Your task to perform on an android device: Open internet settings Image 0: 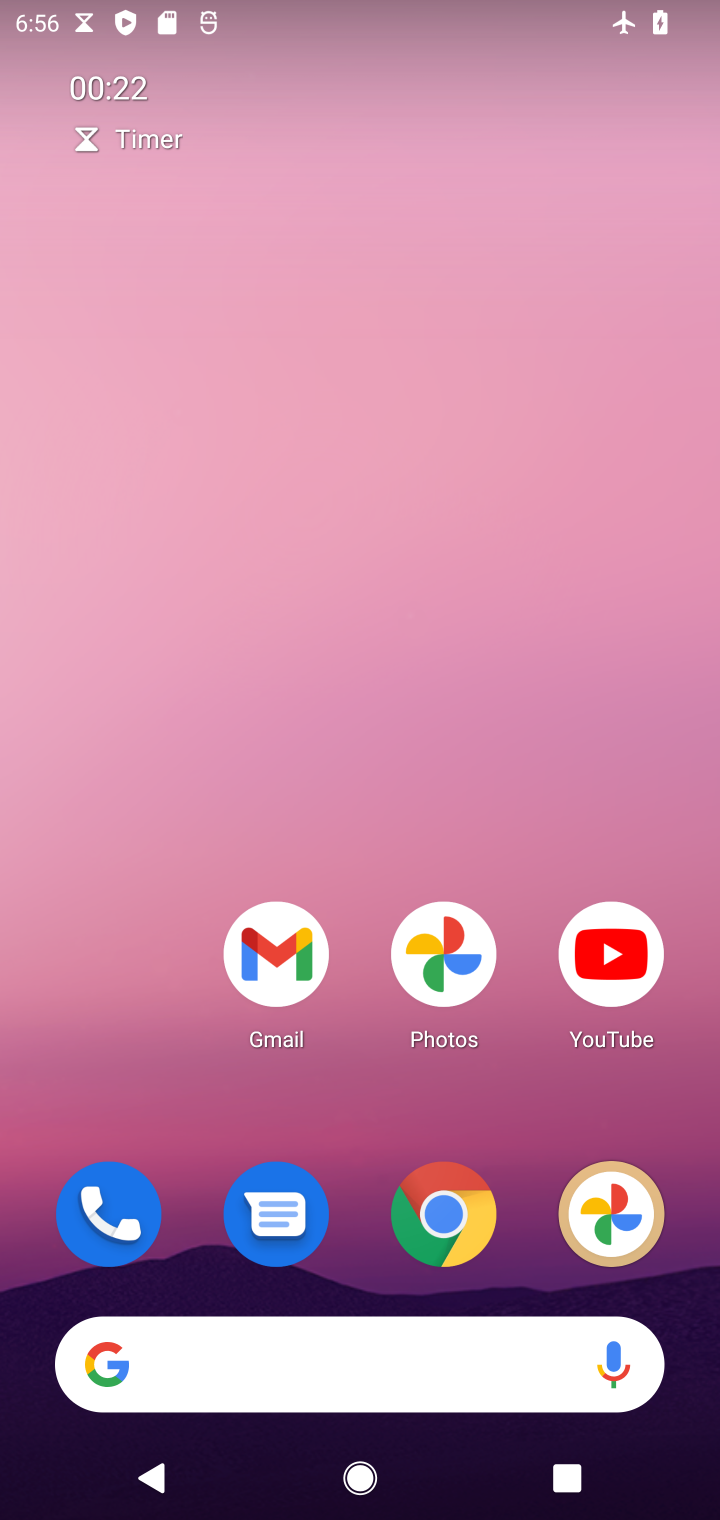
Step 0: drag from (340, 1136) to (236, 30)
Your task to perform on an android device: Open internet settings Image 1: 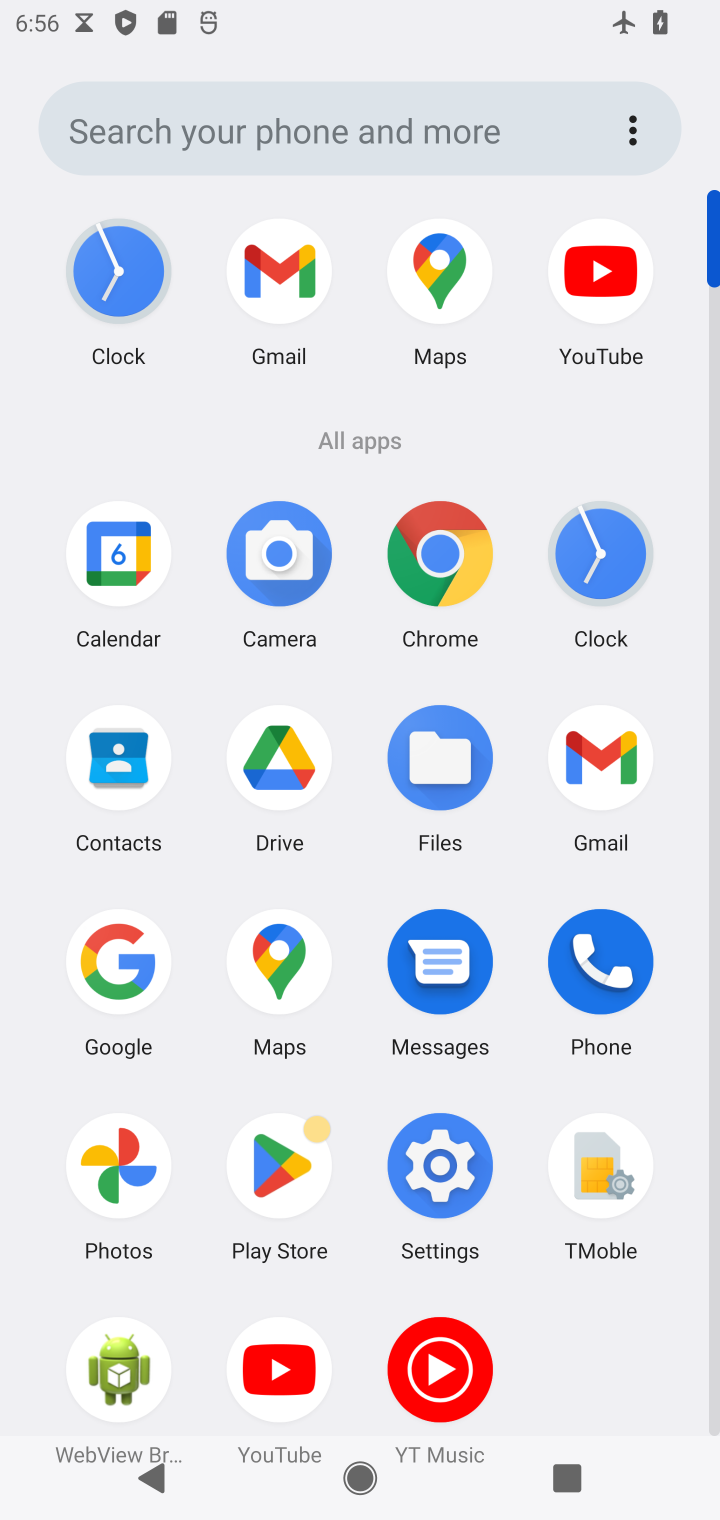
Step 1: click (451, 1175)
Your task to perform on an android device: Open internet settings Image 2: 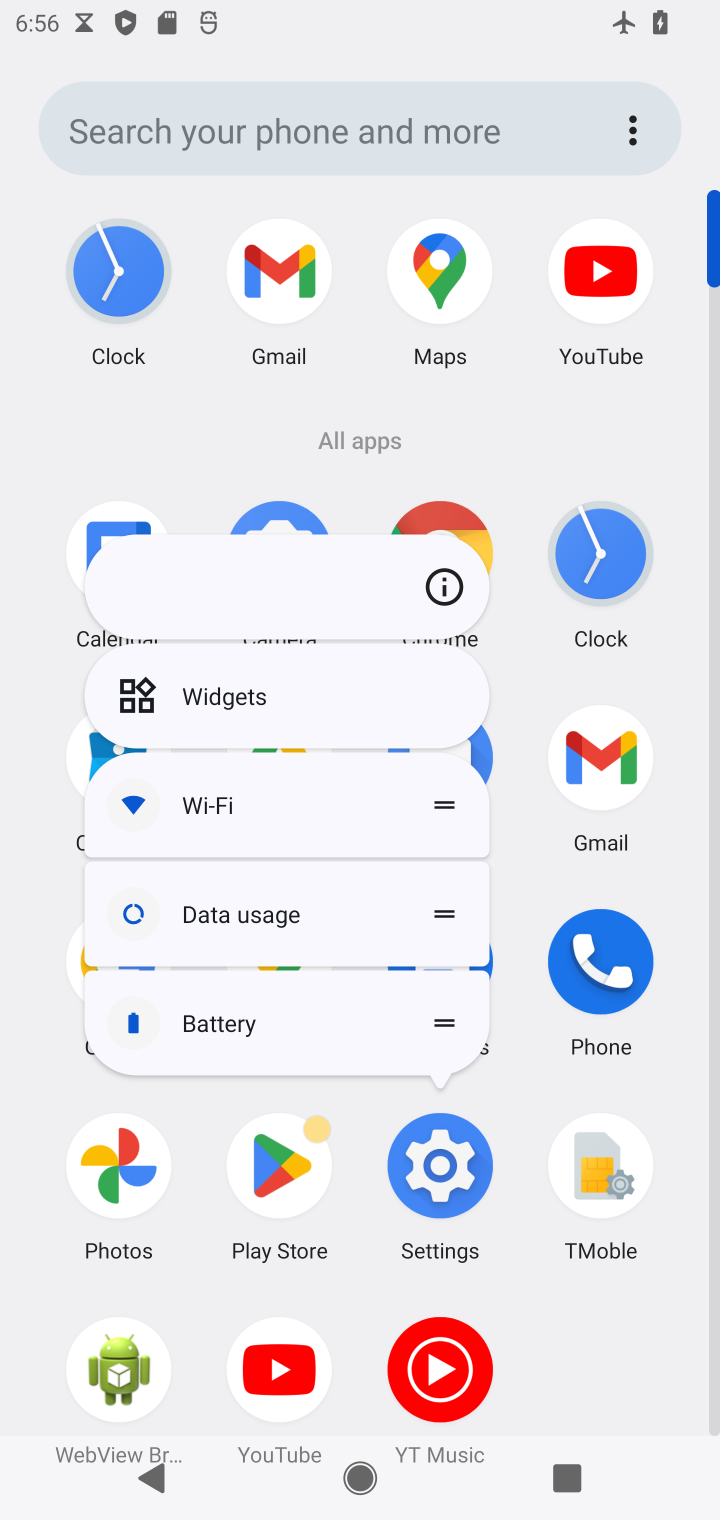
Step 2: click (453, 1173)
Your task to perform on an android device: Open internet settings Image 3: 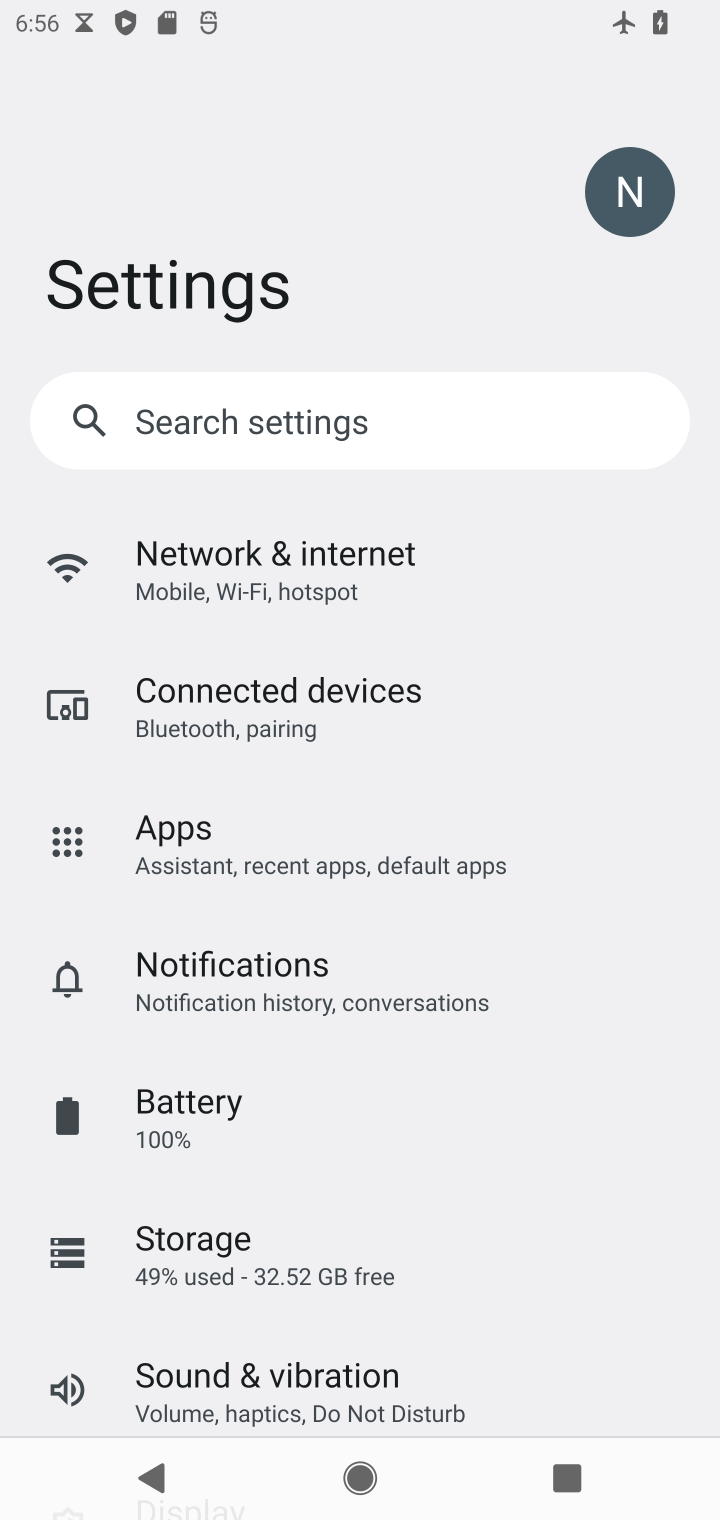
Step 3: click (248, 572)
Your task to perform on an android device: Open internet settings Image 4: 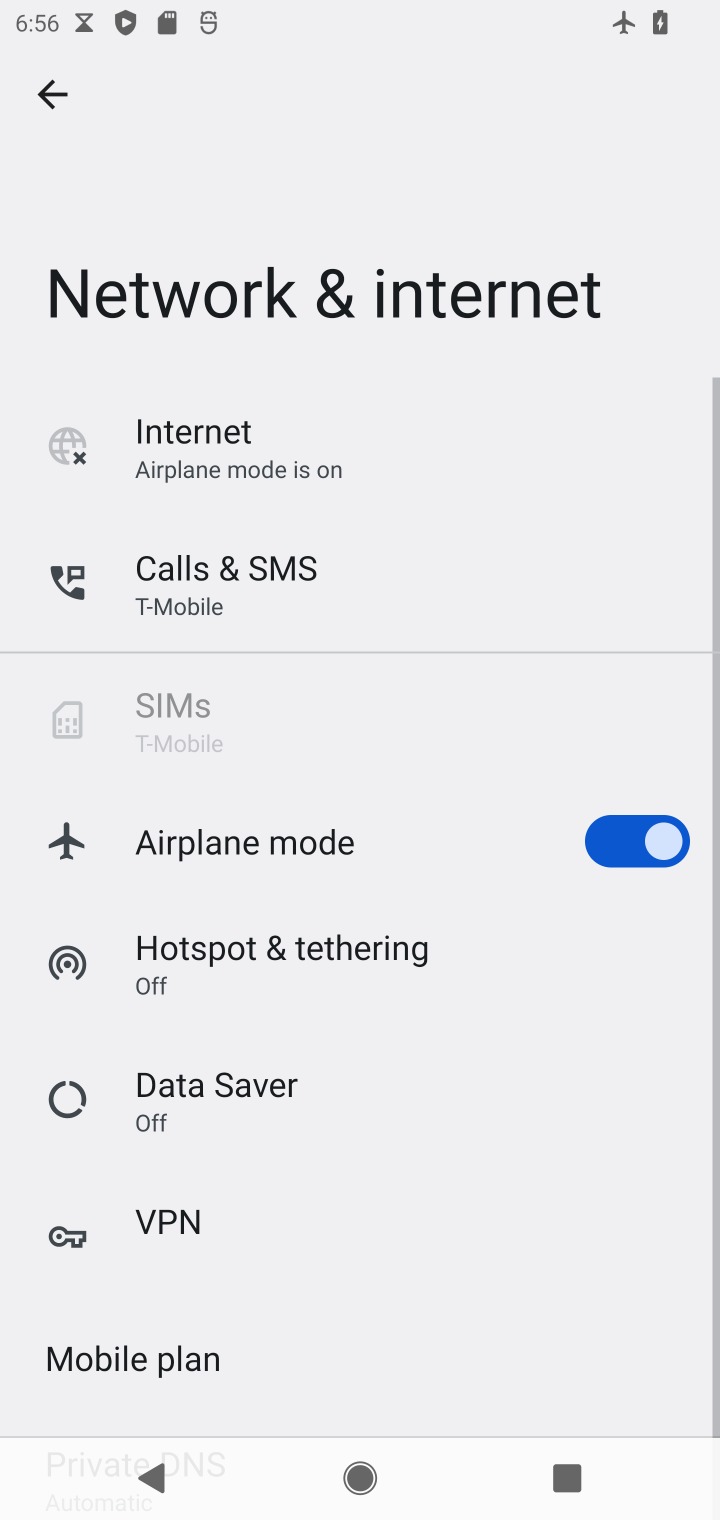
Step 4: click (213, 456)
Your task to perform on an android device: Open internet settings Image 5: 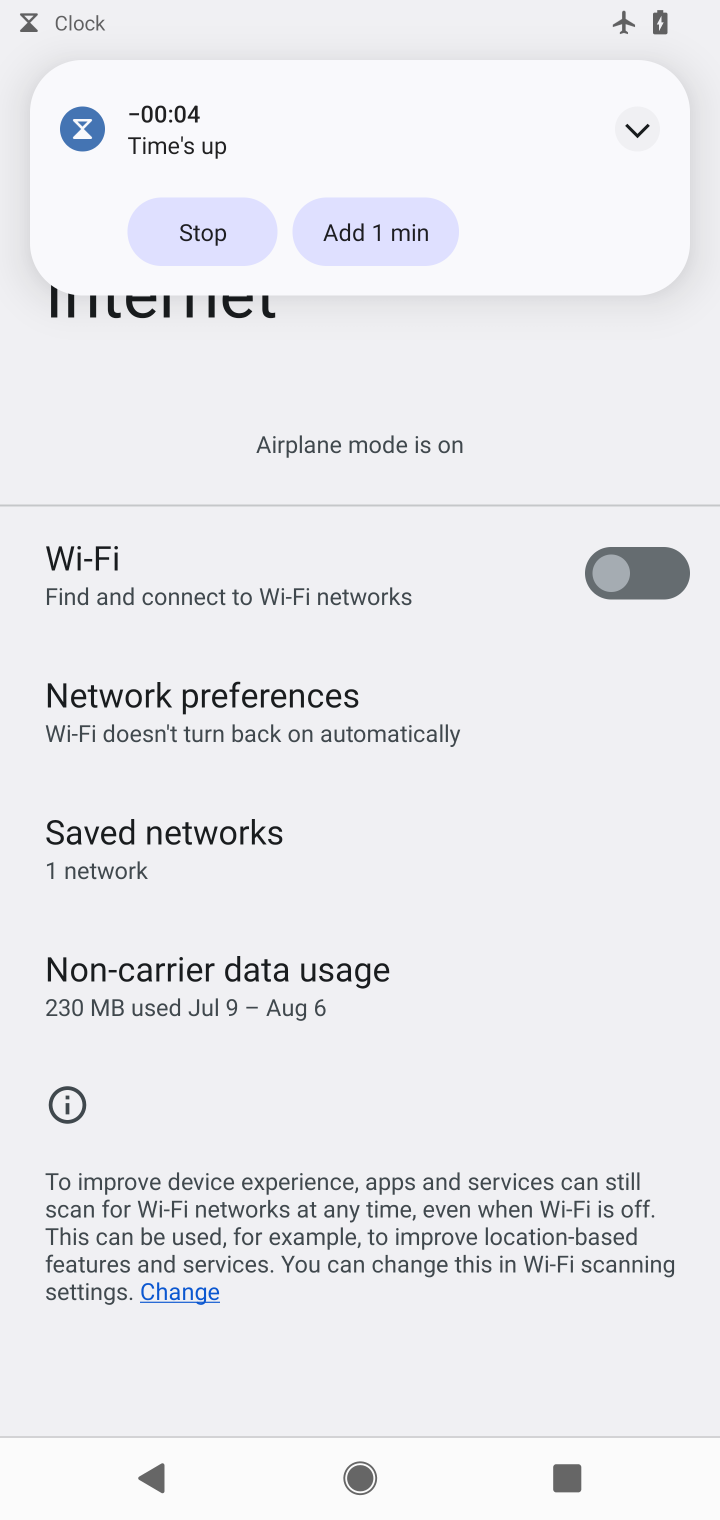
Step 5: click (175, 216)
Your task to perform on an android device: Open internet settings Image 6: 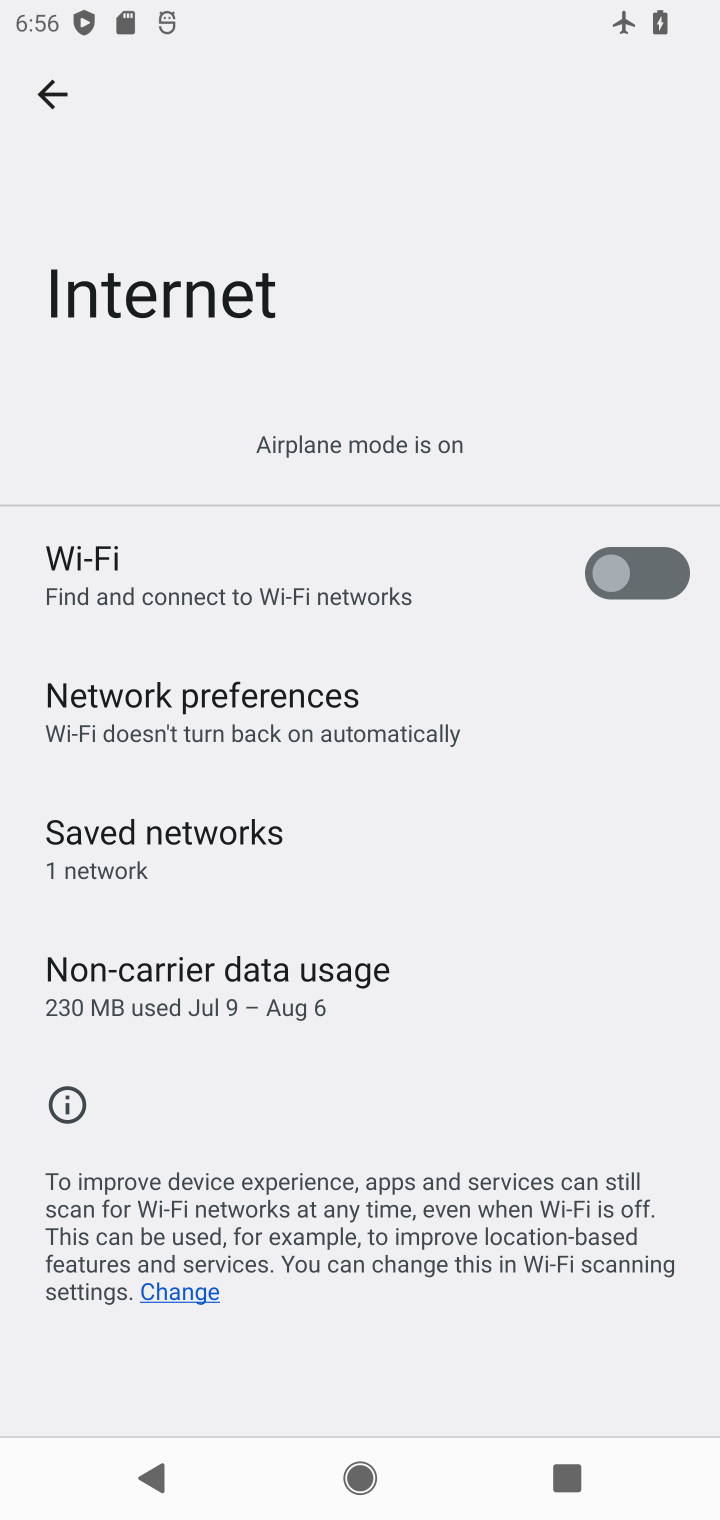
Step 6: task complete